Your task to perform on an android device: When is my next appointment? Image 0: 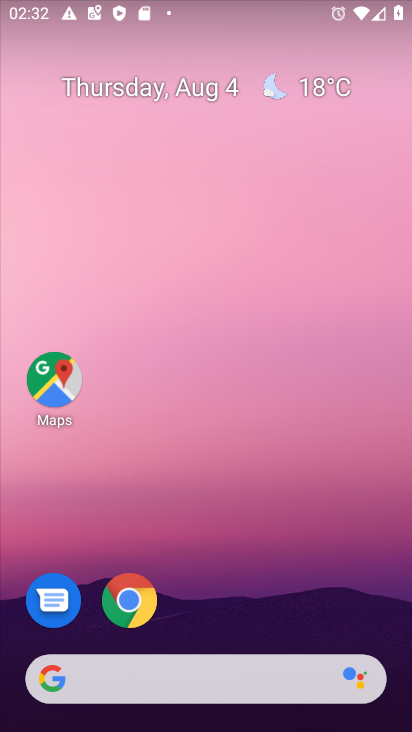
Step 0: drag from (192, 670) to (321, 163)
Your task to perform on an android device: When is my next appointment? Image 1: 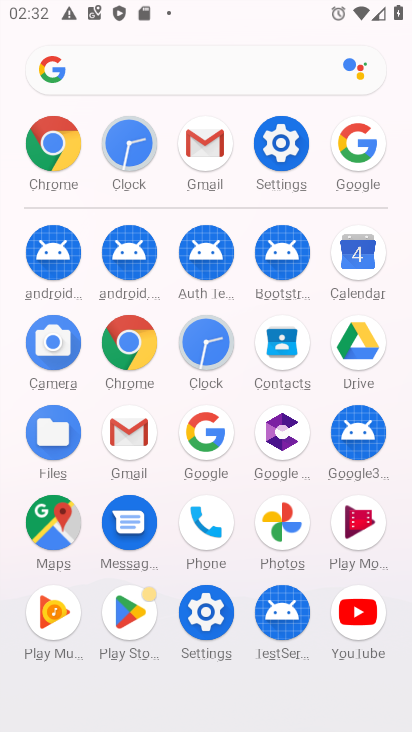
Step 1: click (356, 262)
Your task to perform on an android device: When is my next appointment? Image 2: 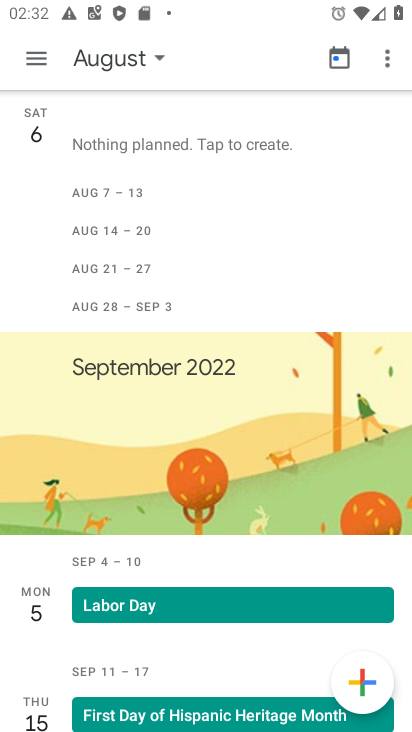
Step 2: task complete